Your task to perform on an android device: turn on sleep mode Image 0: 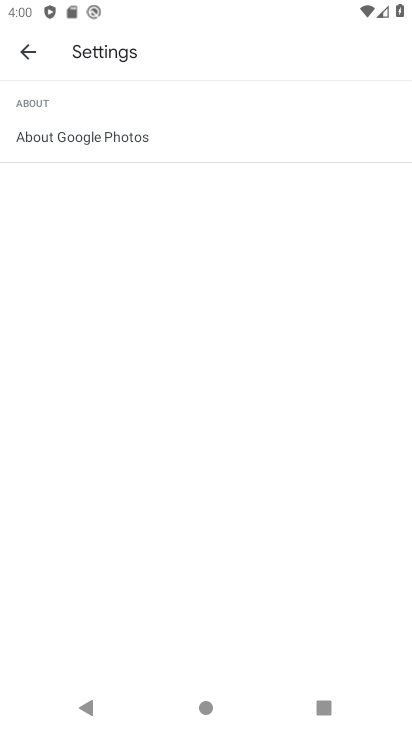
Step 0: press home button
Your task to perform on an android device: turn on sleep mode Image 1: 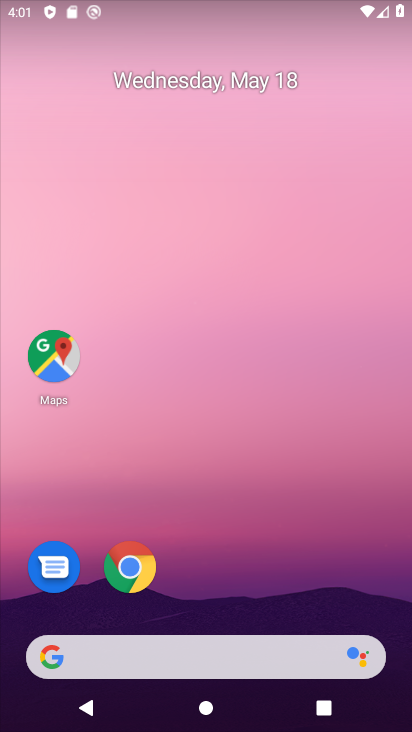
Step 1: drag from (233, 566) to (230, 118)
Your task to perform on an android device: turn on sleep mode Image 2: 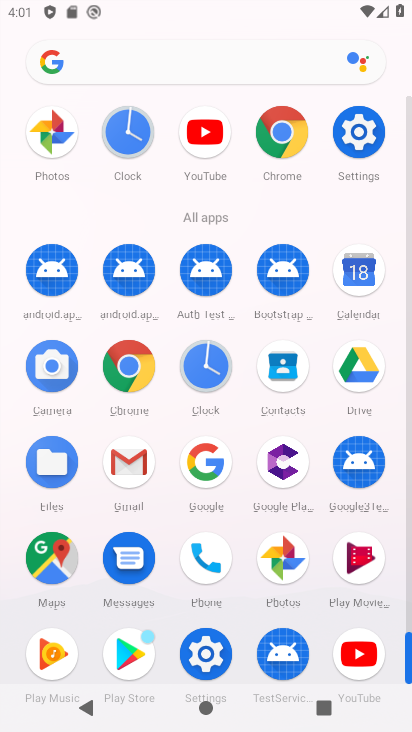
Step 2: click (353, 132)
Your task to perform on an android device: turn on sleep mode Image 3: 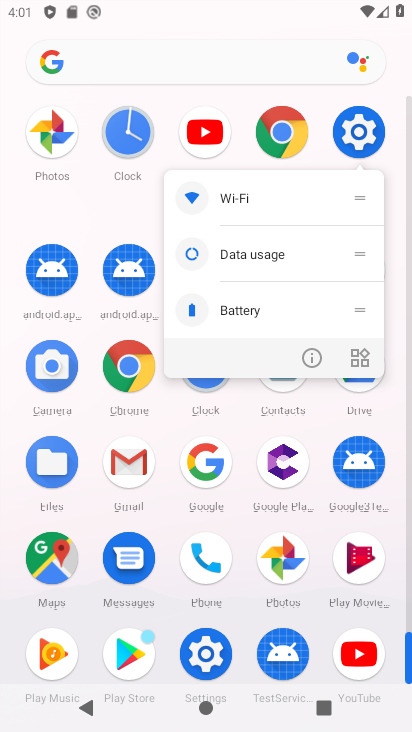
Step 3: click (343, 129)
Your task to perform on an android device: turn on sleep mode Image 4: 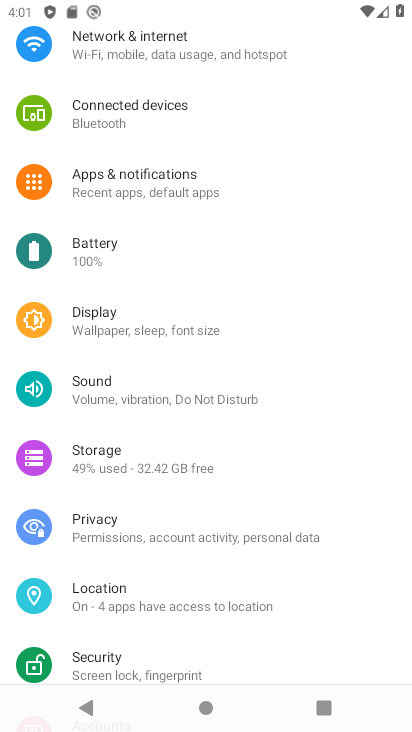
Step 4: click (115, 330)
Your task to perform on an android device: turn on sleep mode Image 5: 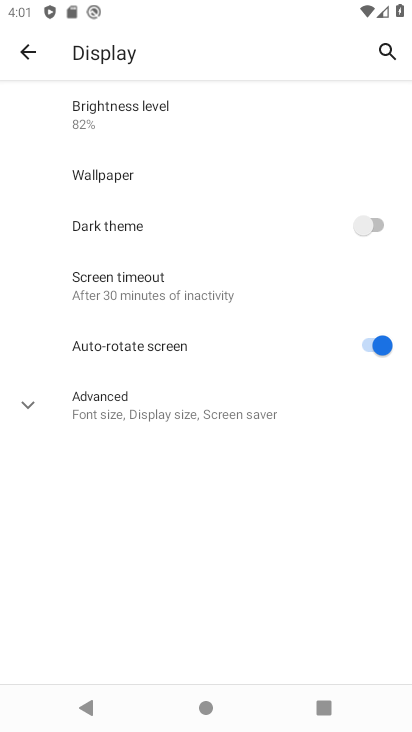
Step 5: task complete